Your task to perform on an android device: Go to eBay Image 0: 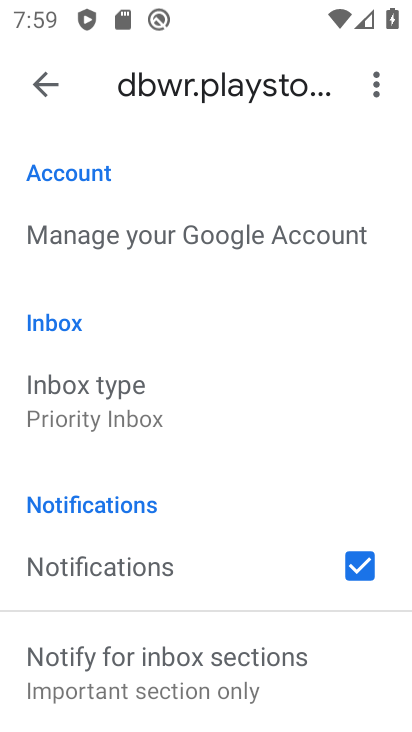
Step 0: press home button
Your task to perform on an android device: Go to eBay Image 1: 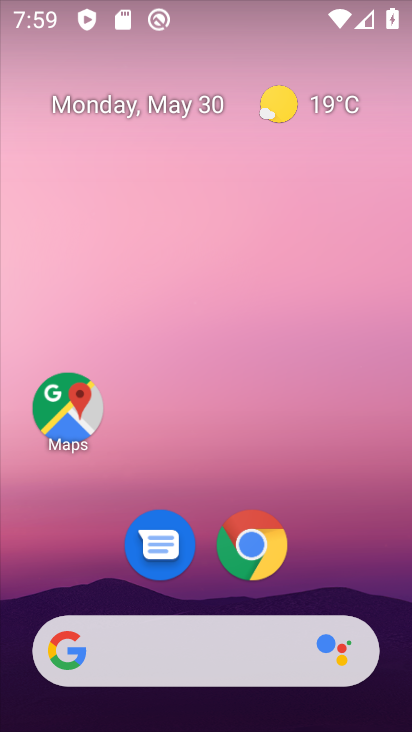
Step 1: click (237, 547)
Your task to perform on an android device: Go to eBay Image 2: 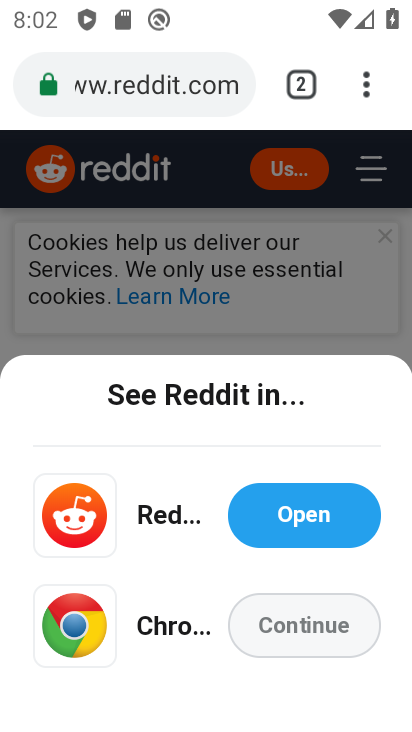
Step 2: click (299, 73)
Your task to perform on an android device: Go to eBay Image 3: 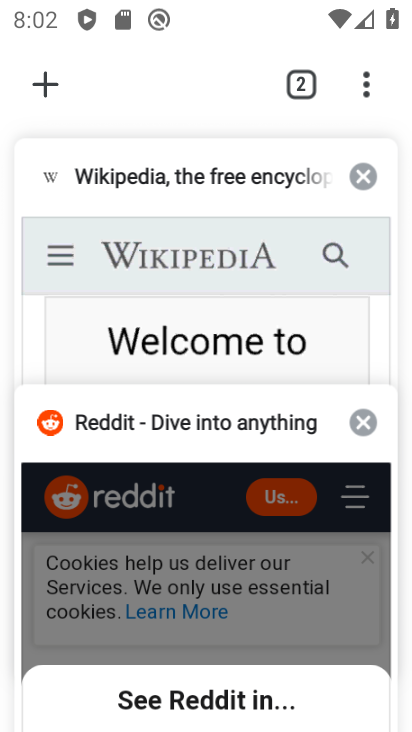
Step 3: click (44, 72)
Your task to perform on an android device: Go to eBay Image 4: 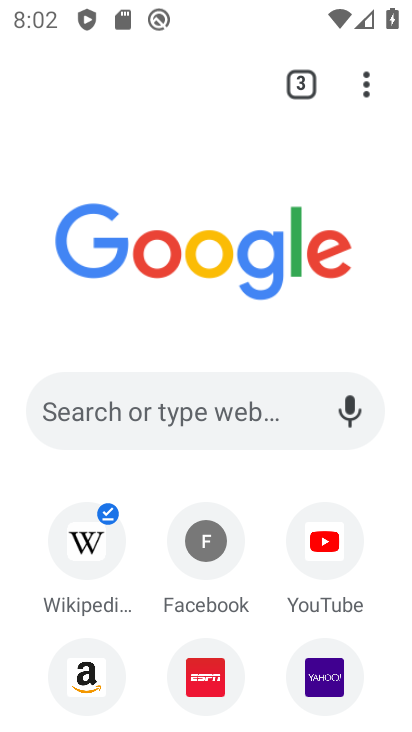
Step 4: click (192, 419)
Your task to perform on an android device: Go to eBay Image 5: 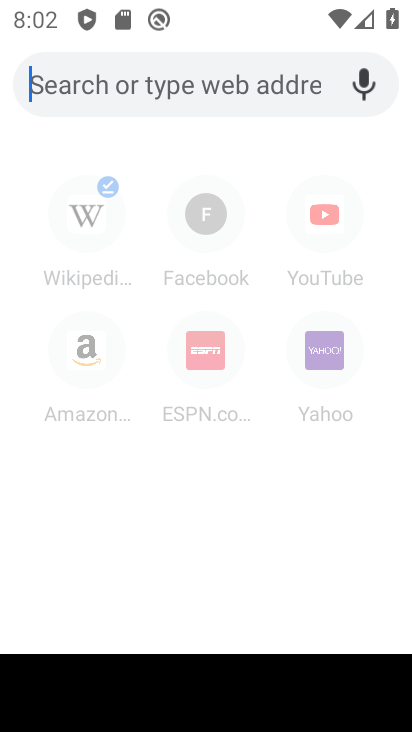
Step 5: type "eBay"
Your task to perform on an android device: Go to eBay Image 6: 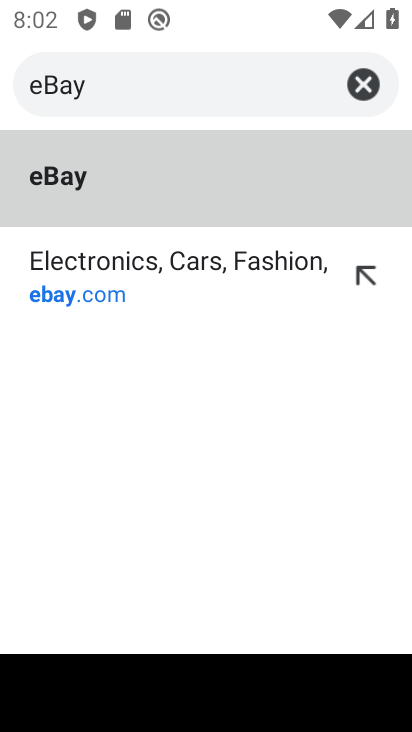
Step 6: click (73, 281)
Your task to perform on an android device: Go to eBay Image 7: 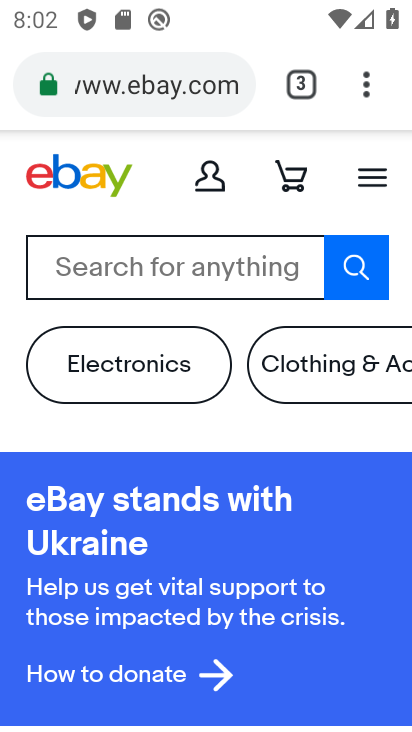
Step 7: task complete